Your task to perform on an android device: toggle javascript in the chrome app Image 0: 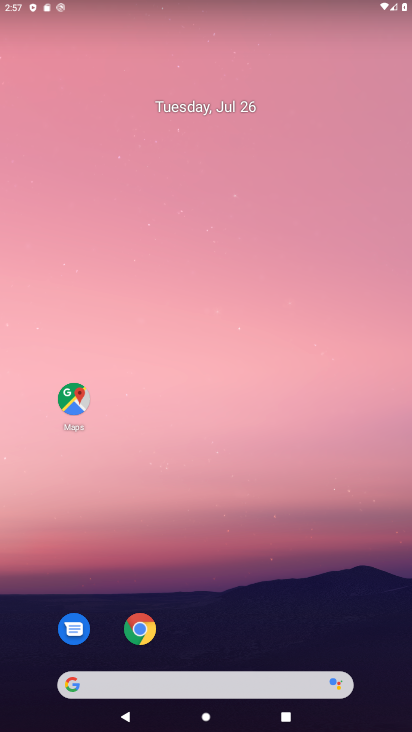
Step 0: click (133, 627)
Your task to perform on an android device: toggle javascript in the chrome app Image 1: 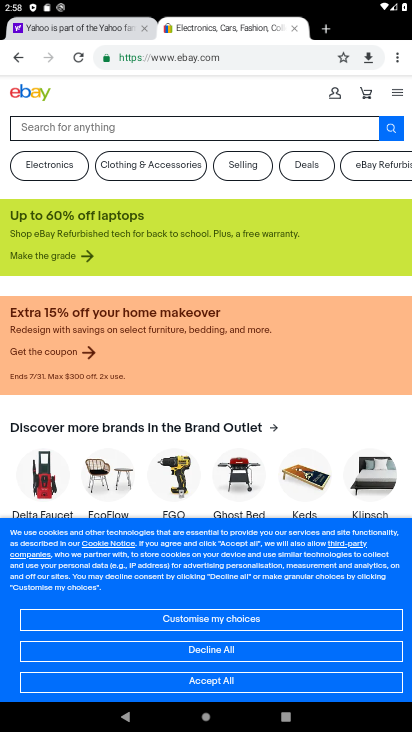
Step 1: click (396, 63)
Your task to perform on an android device: toggle javascript in the chrome app Image 2: 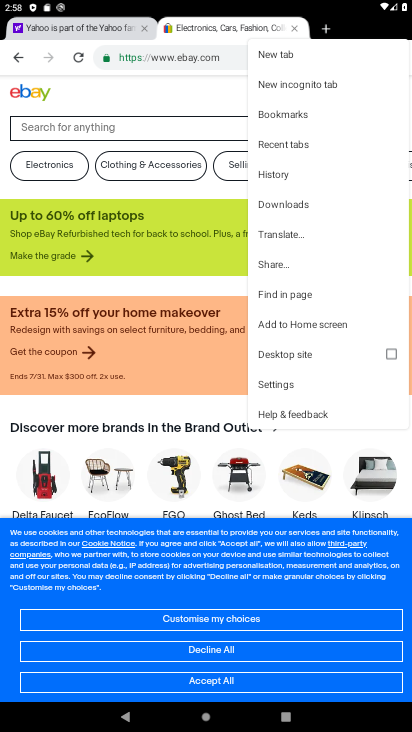
Step 2: click (274, 380)
Your task to perform on an android device: toggle javascript in the chrome app Image 3: 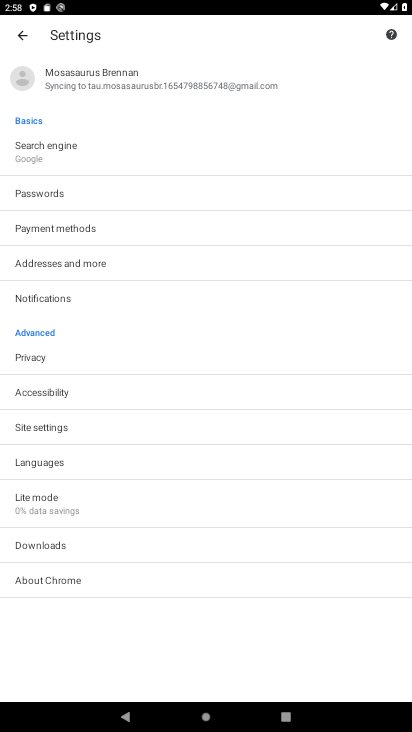
Step 3: click (41, 424)
Your task to perform on an android device: toggle javascript in the chrome app Image 4: 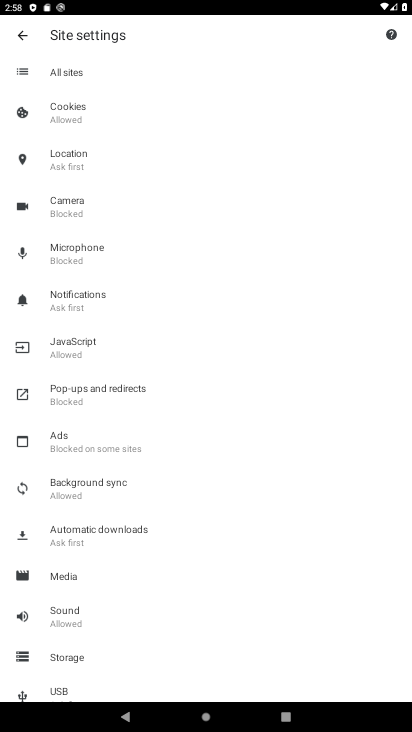
Step 4: click (62, 341)
Your task to perform on an android device: toggle javascript in the chrome app Image 5: 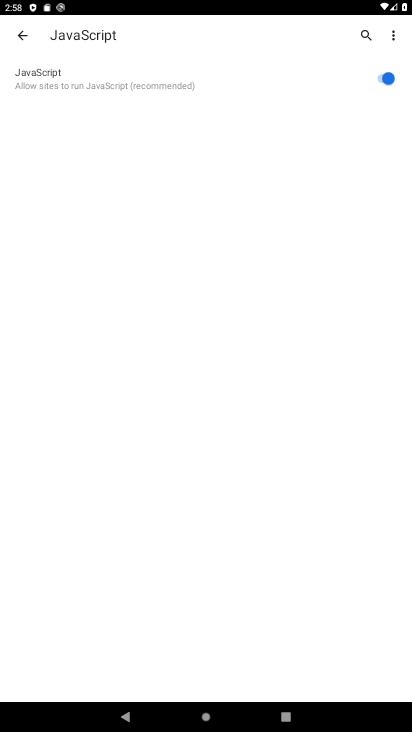
Step 5: click (385, 72)
Your task to perform on an android device: toggle javascript in the chrome app Image 6: 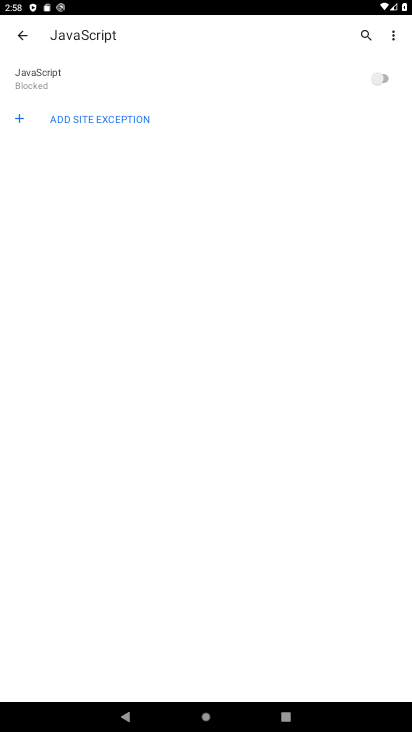
Step 6: task complete